Your task to perform on an android device: Open Google Maps and go to "Timeline" Image 0: 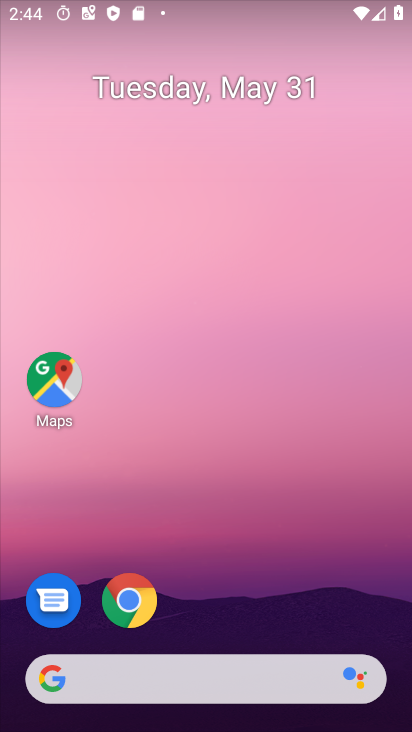
Step 0: click (50, 371)
Your task to perform on an android device: Open Google Maps and go to "Timeline" Image 1: 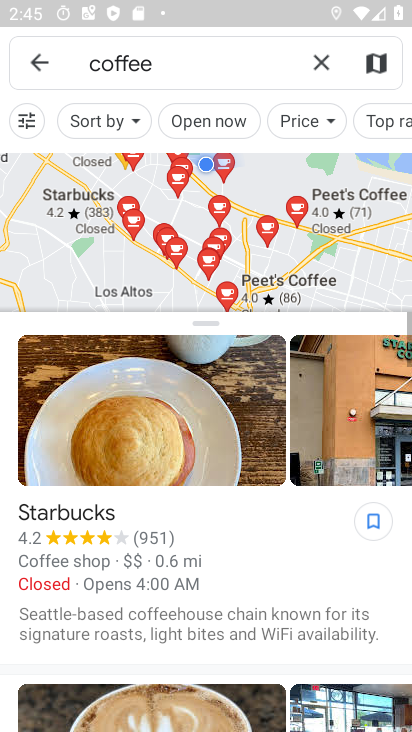
Step 1: click (41, 68)
Your task to perform on an android device: Open Google Maps and go to "Timeline" Image 2: 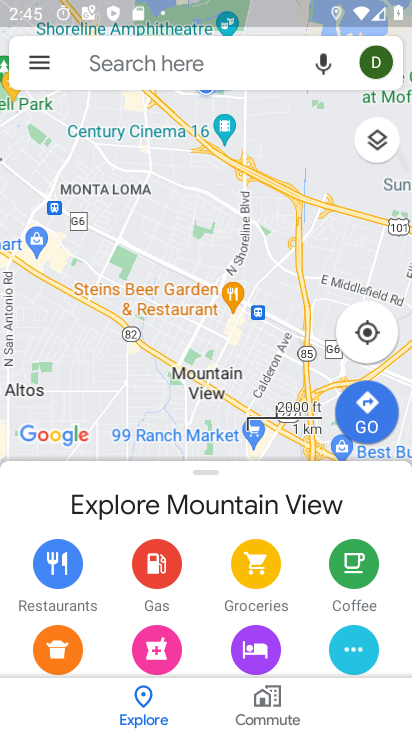
Step 2: click (34, 59)
Your task to perform on an android device: Open Google Maps and go to "Timeline" Image 3: 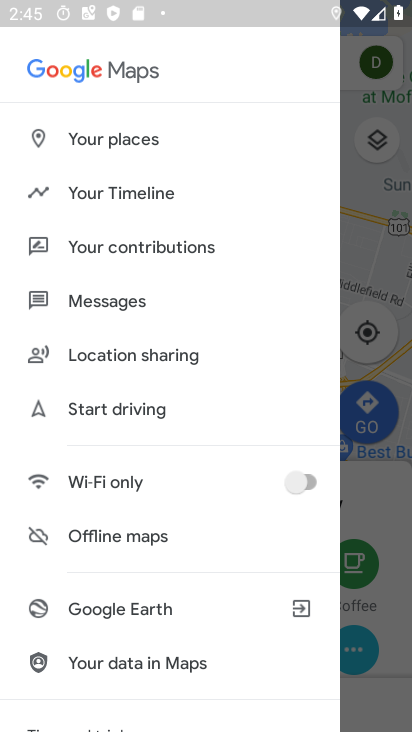
Step 3: click (188, 187)
Your task to perform on an android device: Open Google Maps and go to "Timeline" Image 4: 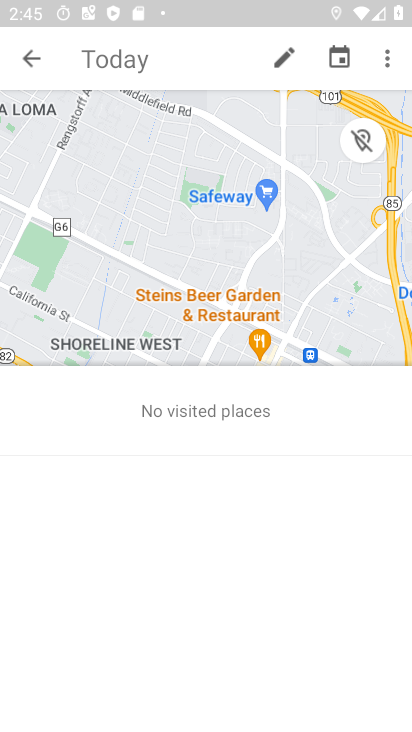
Step 4: task complete